Your task to perform on an android device: check android version Image 0: 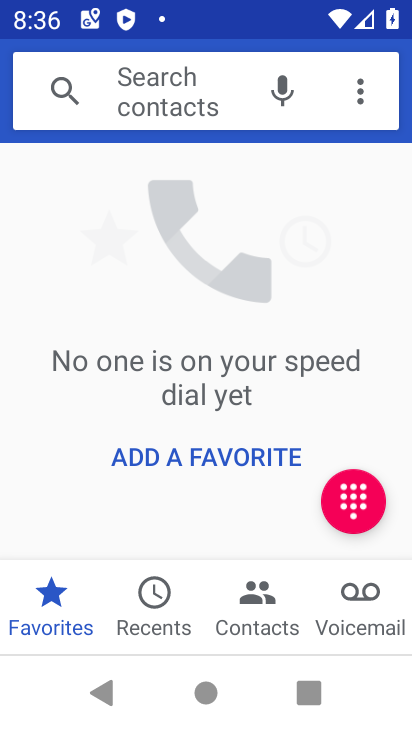
Step 0: press home button
Your task to perform on an android device: check android version Image 1: 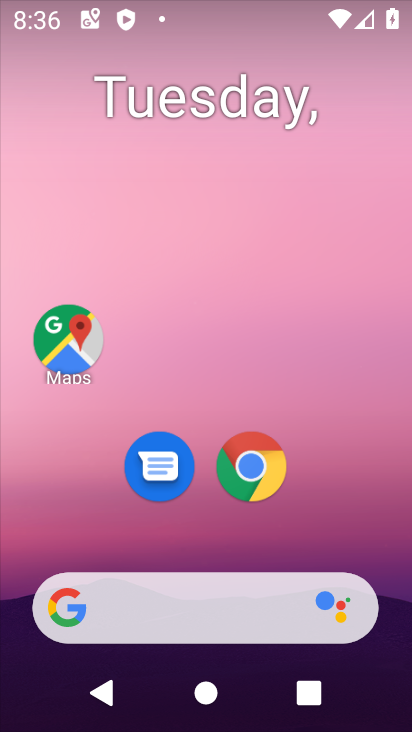
Step 1: drag from (366, 528) to (294, 144)
Your task to perform on an android device: check android version Image 2: 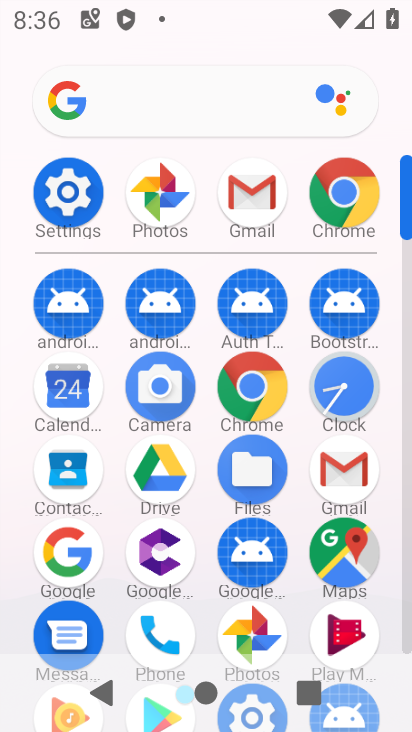
Step 2: click (75, 219)
Your task to perform on an android device: check android version Image 3: 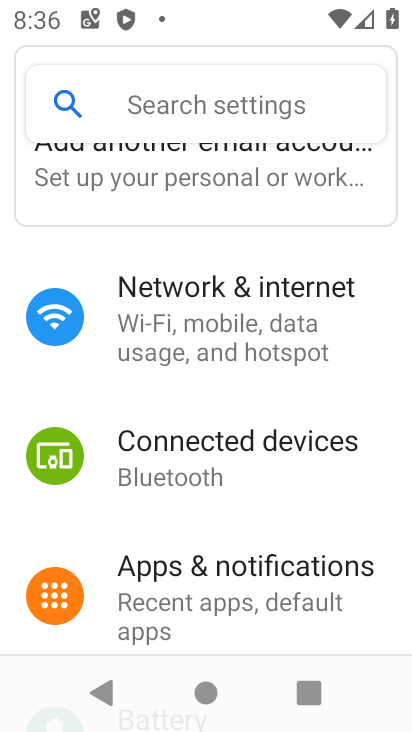
Step 3: task complete